Your task to perform on an android device: Search for sushi restaurants on Maps Image 0: 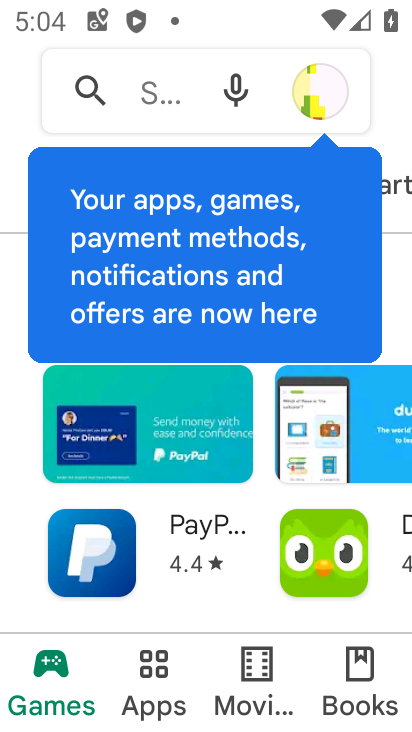
Step 0: press back button
Your task to perform on an android device: Search for sushi restaurants on Maps Image 1: 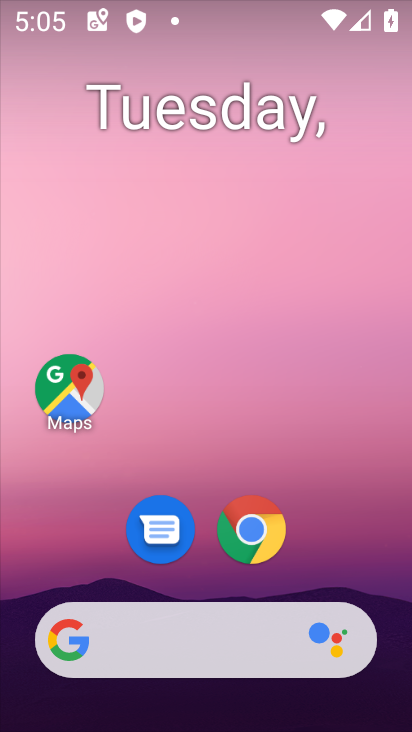
Step 1: click (77, 386)
Your task to perform on an android device: Search for sushi restaurants on Maps Image 2: 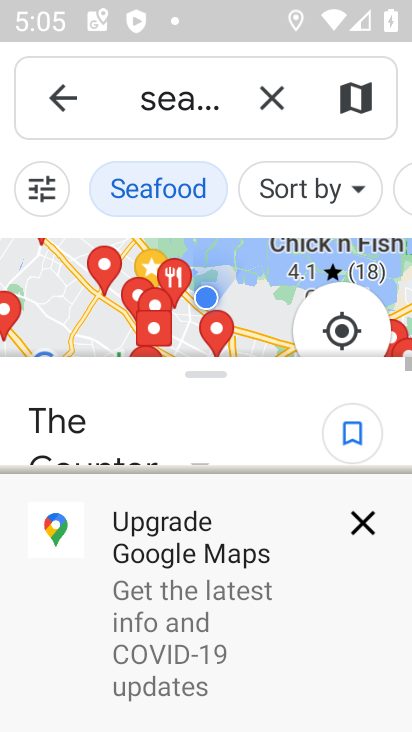
Step 2: click (265, 94)
Your task to perform on an android device: Search for sushi restaurants on Maps Image 3: 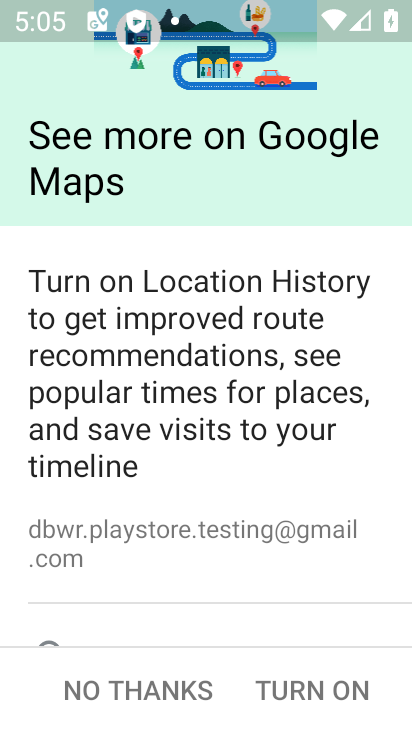
Step 3: type "sushi restaurants"
Your task to perform on an android device: Search for sushi restaurants on Maps Image 4: 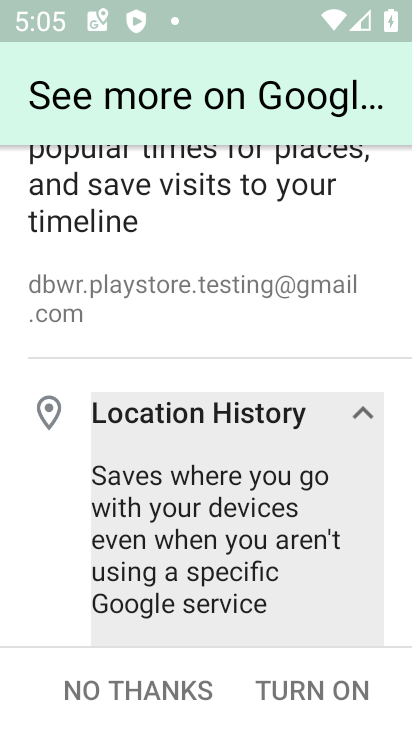
Step 4: click (279, 685)
Your task to perform on an android device: Search for sushi restaurants on Maps Image 5: 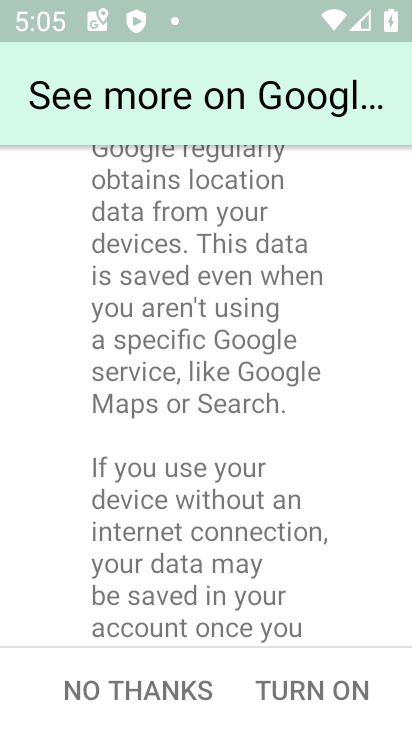
Step 5: press back button
Your task to perform on an android device: Search for sushi restaurants on Maps Image 6: 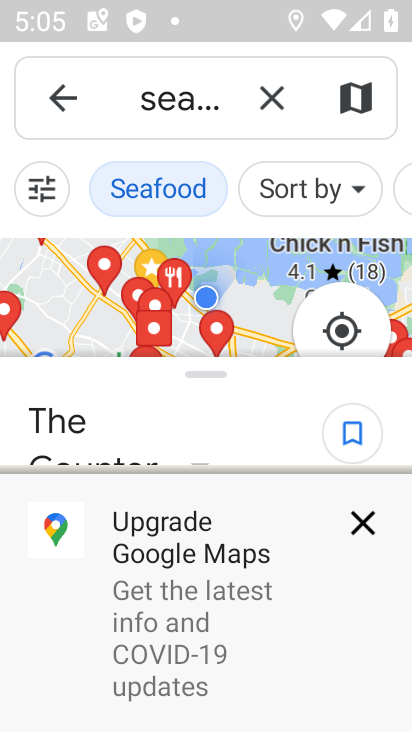
Step 6: click (264, 103)
Your task to perform on an android device: Search for sushi restaurants on Maps Image 7: 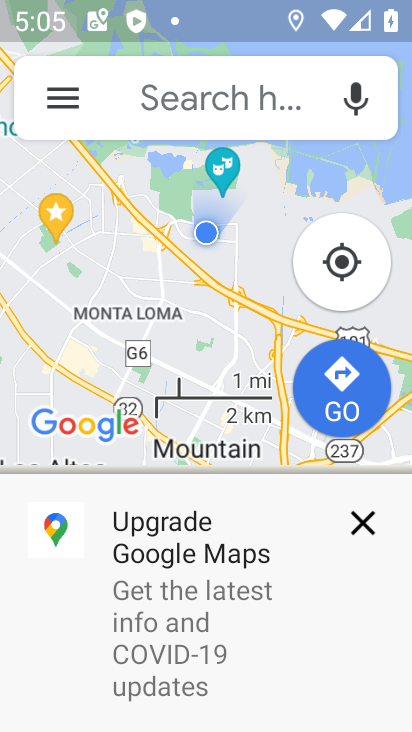
Step 7: click (364, 523)
Your task to perform on an android device: Search for sushi restaurants on Maps Image 8: 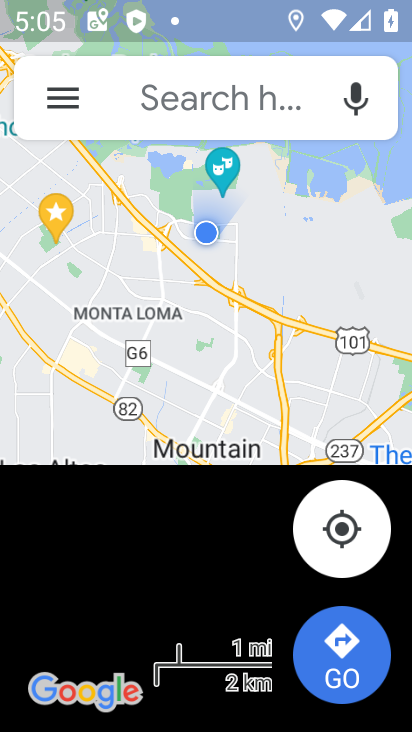
Step 8: click (153, 103)
Your task to perform on an android device: Search for sushi restaurants on Maps Image 9: 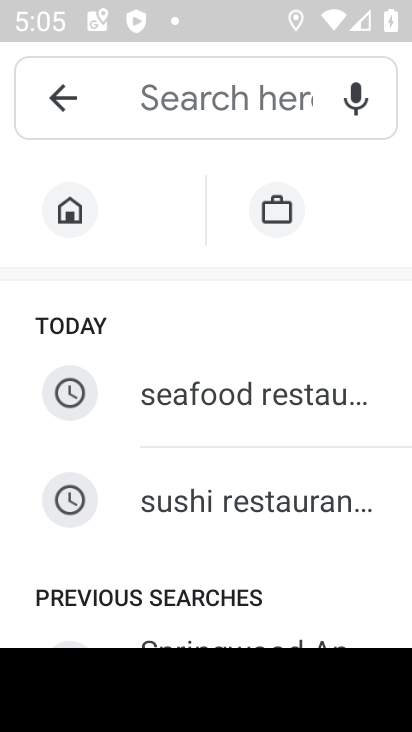
Step 9: type "sushi restaurants"
Your task to perform on an android device: Search for sushi restaurants on Maps Image 10: 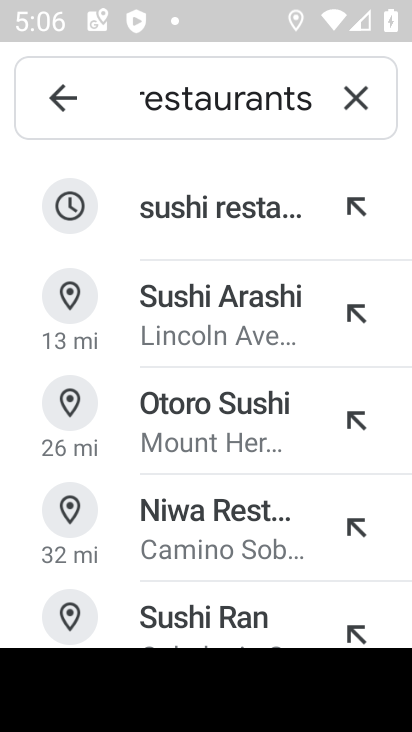
Step 10: click (161, 204)
Your task to perform on an android device: Search for sushi restaurants on Maps Image 11: 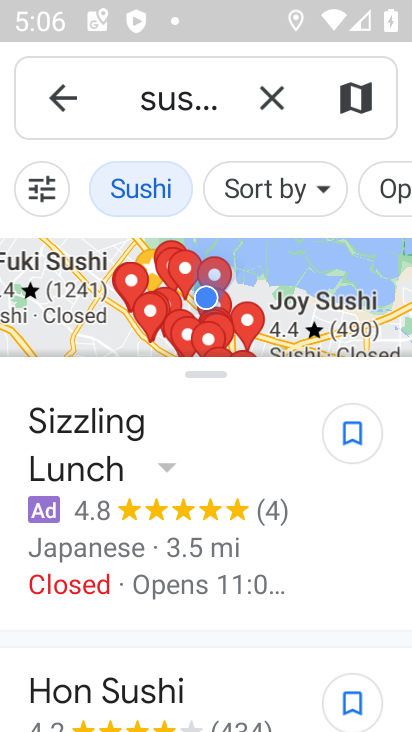
Step 11: task complete